Your task to perform on an android device: Toggle the flashlight Image 0: 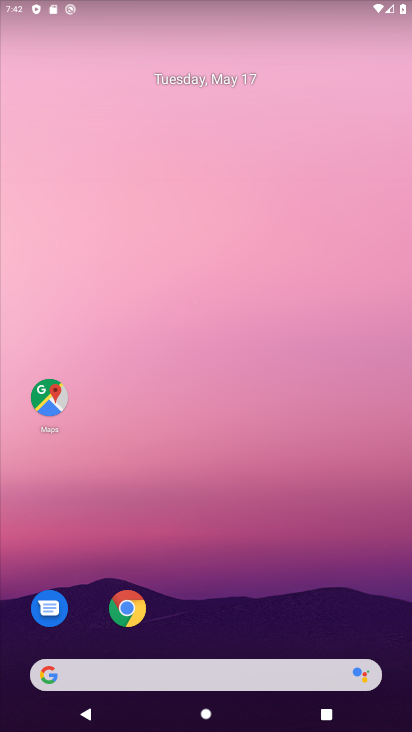
Step 0: drag from (304, 576) to (315, 137)
Your task to perform on an android device: Toggle the flashlight Image 1: 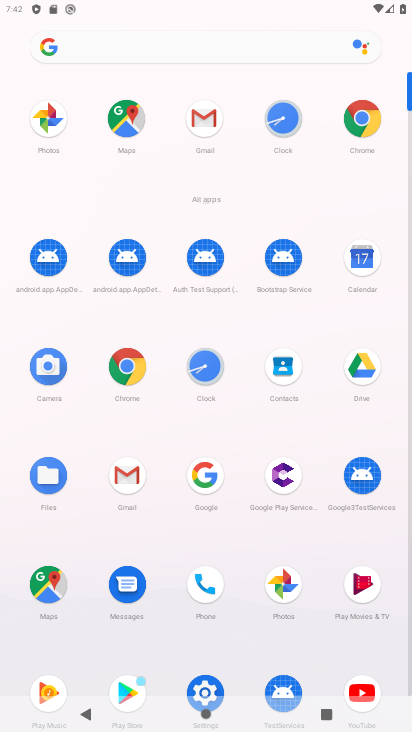
Step 1: click (203, 690)
Your task to perform on an android device: Toggle the flashlight Image 2: 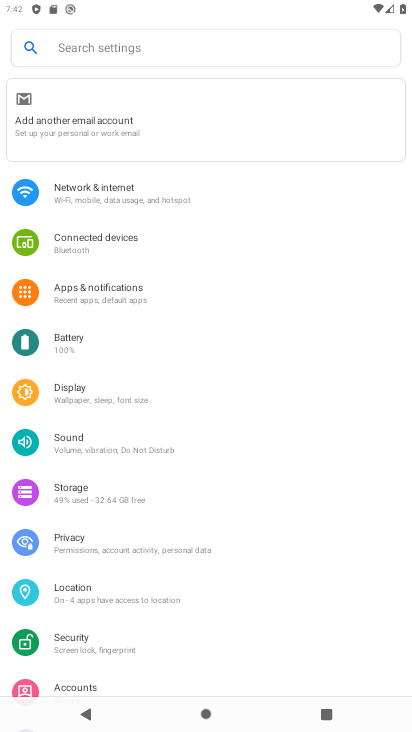
Step 2: click (130, 45)
Your task to perform on an android device: Toggle the flashlight Image 3: 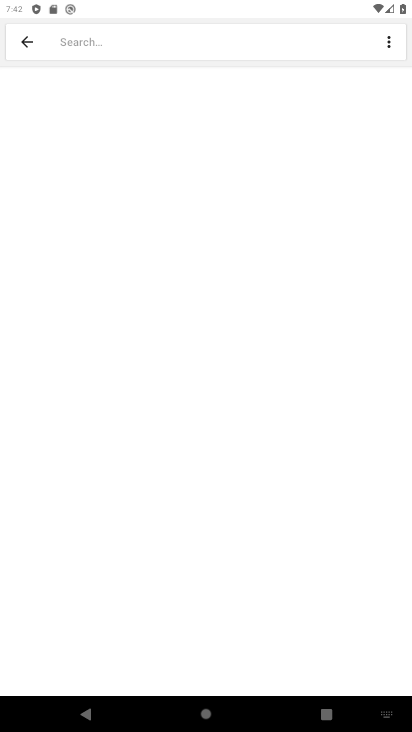
Step 3: type "flashlight"
Your task to perform on an android device: Toggle the flashlight Image 4: 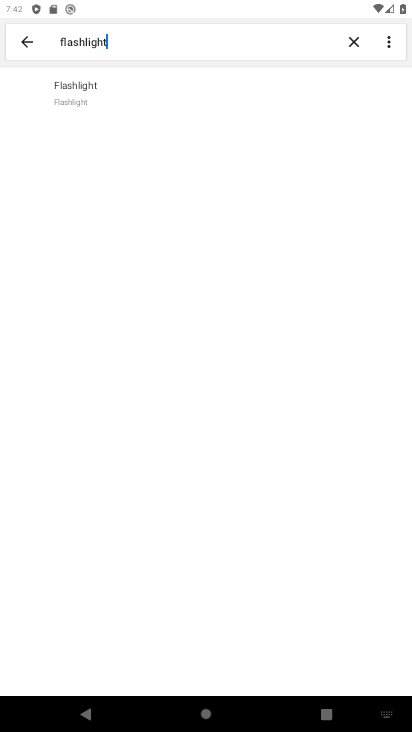
Step 4: task complete